Your task to perform on an android device: turn off javascript in the chrome app Image 0: 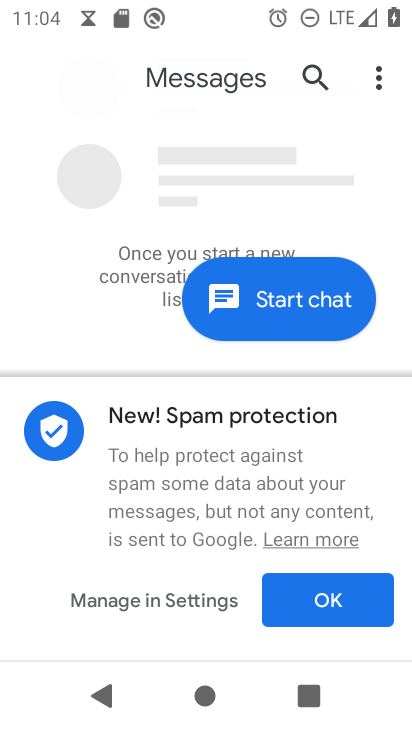
Step 0: press home button
Your task to perform on an android device: turn off javascript in the chrome app Image 1: 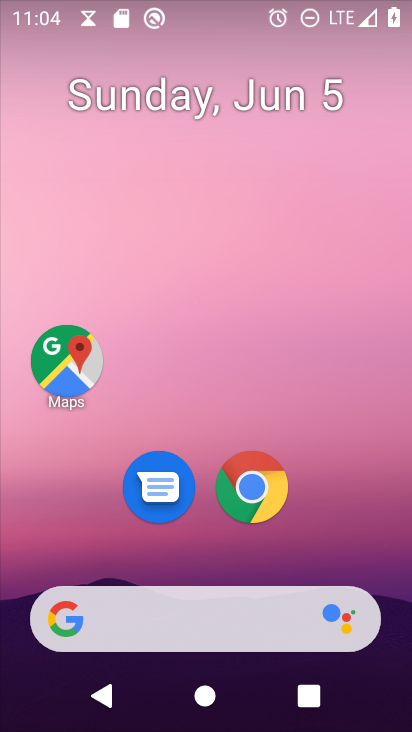
Step 1: click (262, 485)
Your task to perform on an android device: turn off javascript in the chrome app Image 2: 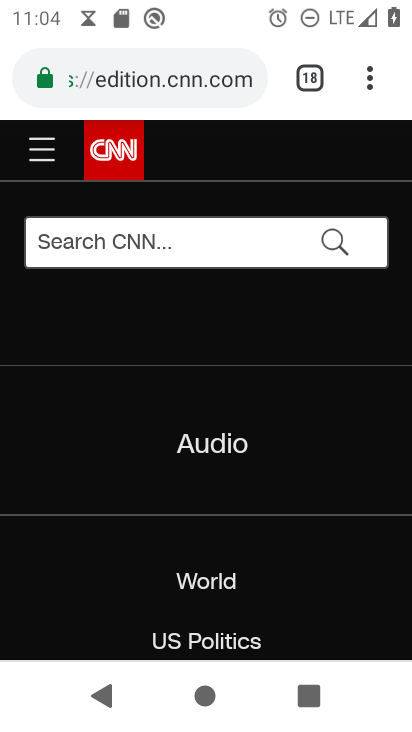
Step 2: click (355, 85)
Your task to perform on an android device: turn off javascript in the chrome app Image 3: 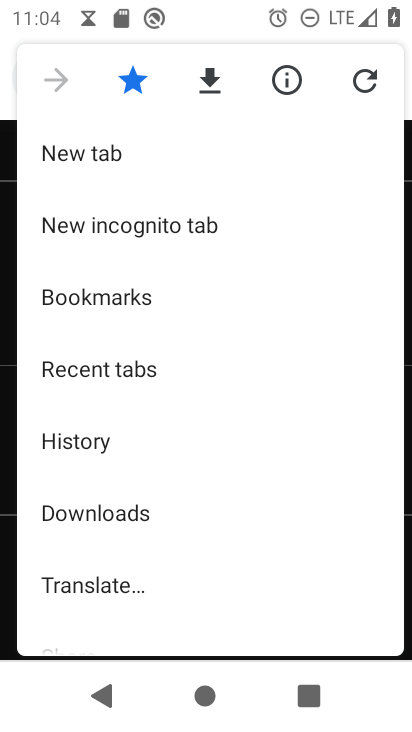
Step 3: drag from (139, 547) to (179, 264)
Your task to perform on an android device: turn off javascript in the chrome app Image 4: 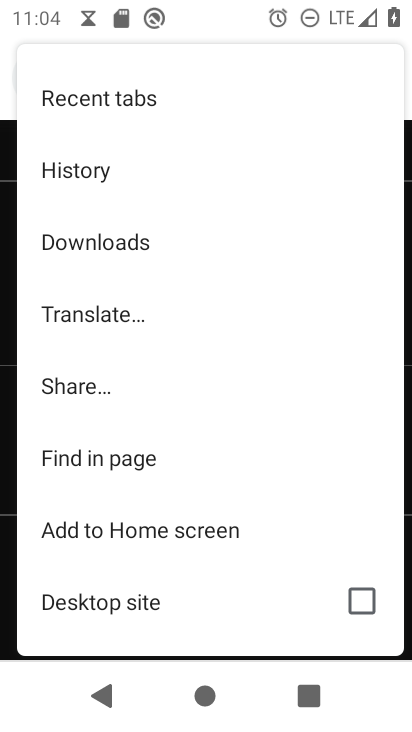
Step 4: drag from (186, 496) to (217, 173)
Your task to perform on an android device: turn off javascript in the chrome app Image 5: 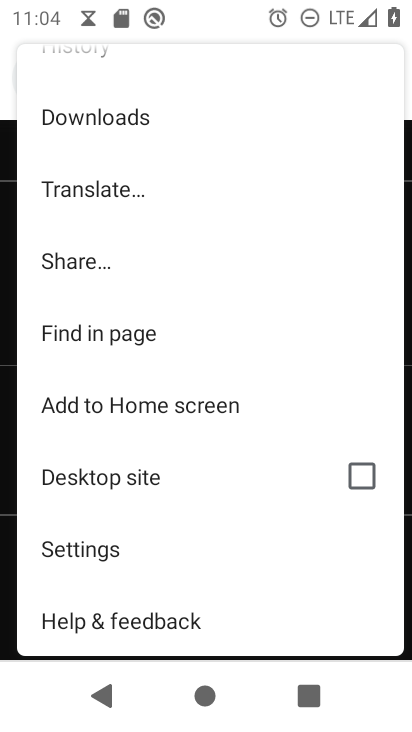
Step 5: click (116, 554)
Your task to perform on an android device: turn off javascript in the chrome app Image 6: 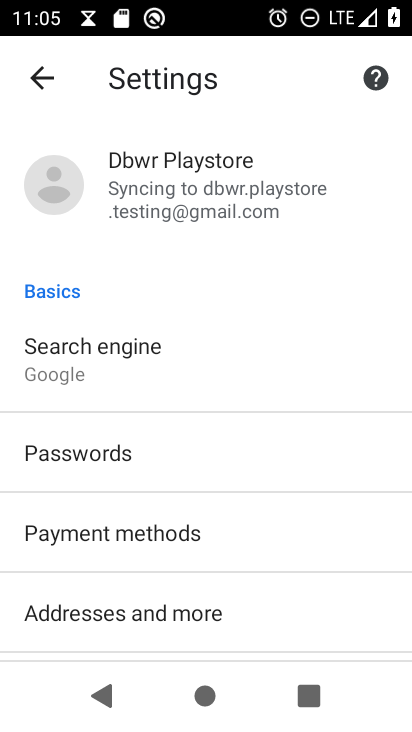
Step 6: drag from (173, 583) to (181, 317)
Your task to perform on an android device: turn off javascript in the chrome app Image 7: 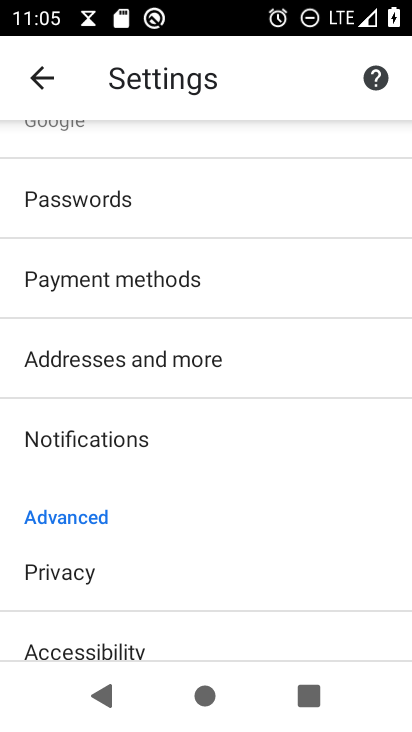
Step 7: drag from (153, 565) to (205, 254)
Your task to perform on an android device: turn off javascript in the chrome app Image 8: 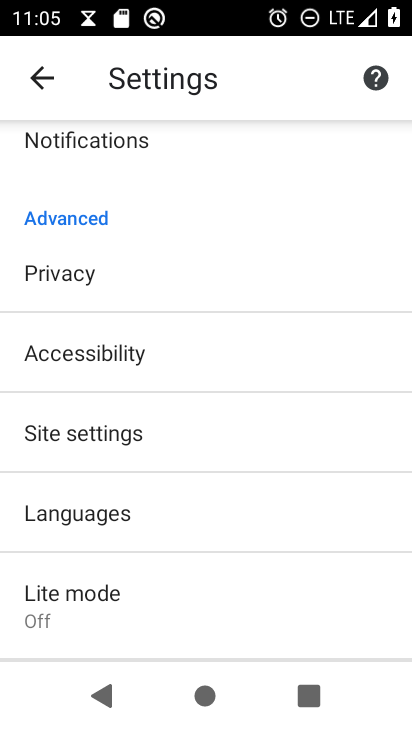
Step 8: drag from (126, 499) to (179, 227)
Your task to perform on an android device: turn off javascript in the chrome app Image 9: 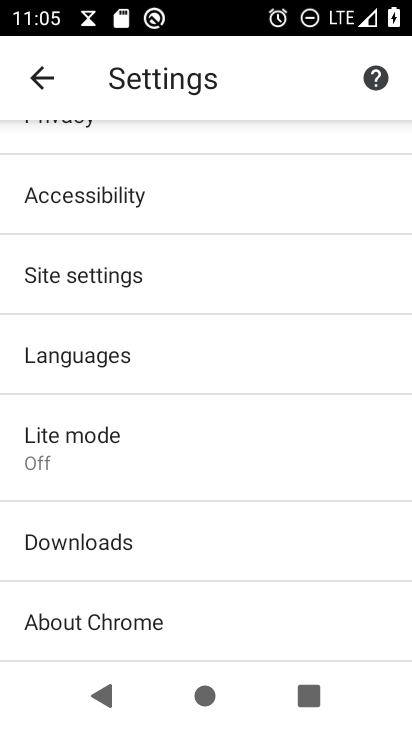
Step 9: click (159, 272)
Your task to perform on an android device: turn off javascript in the chrome app Image 10: 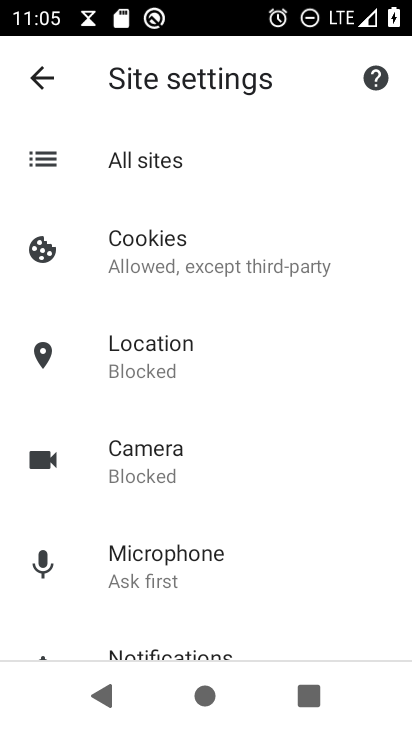
Step 10: drag from (171, 496) to (207, 213)
Your task to perform on an android device: turn off javascript in the chrome app Image 11: 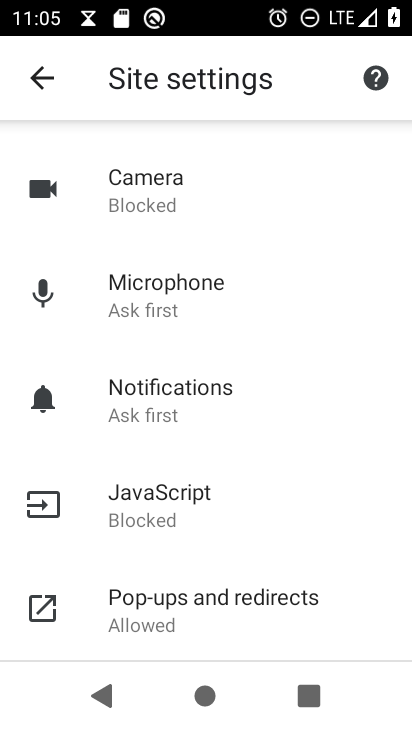
Step 11: click (172, 481)
Your task to perform on an android device: turn off javascript in the chrome app Image 12: 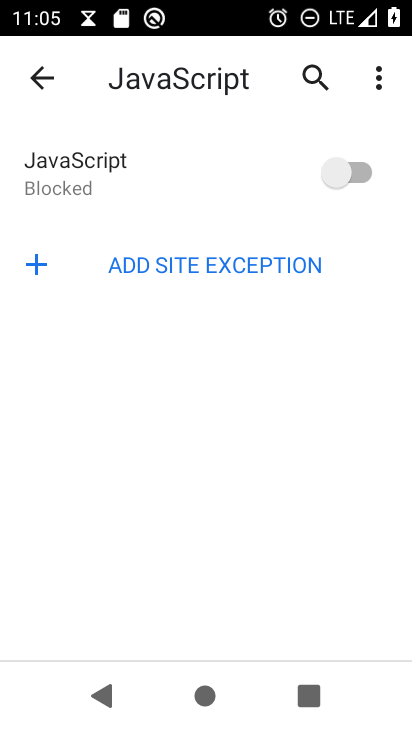
Step 12: task complete